Your task to perform on an android device: What is the recent news? Image 0: 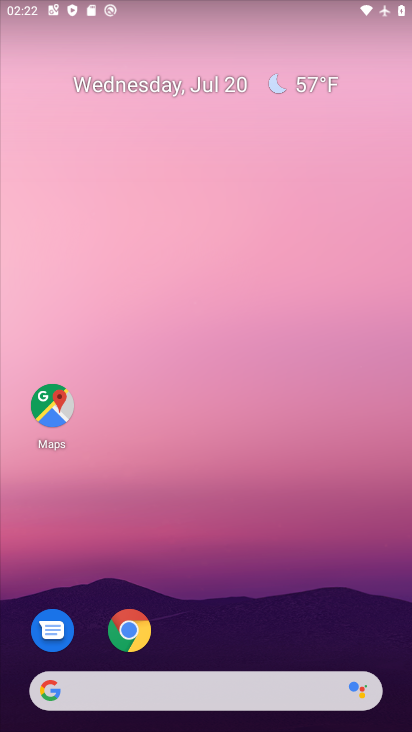
Step 0: drag from (313, 598) to (295, 6)
Your task to perform on an android device: What is the recent news? Image 1: 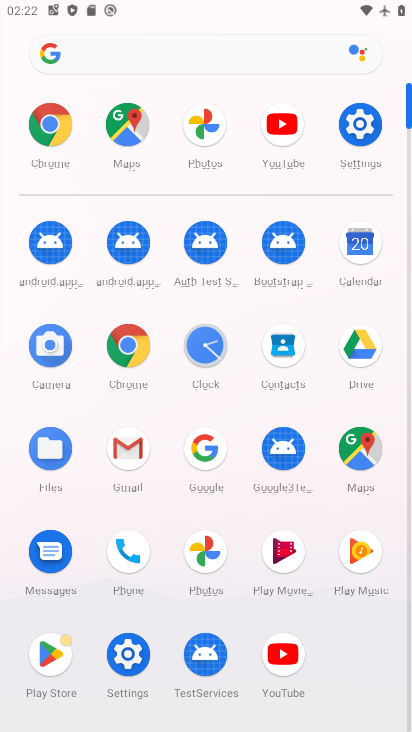
Step 1: click (53, 130)
Your task to perform on an android device: What is the recent news? Image 2: 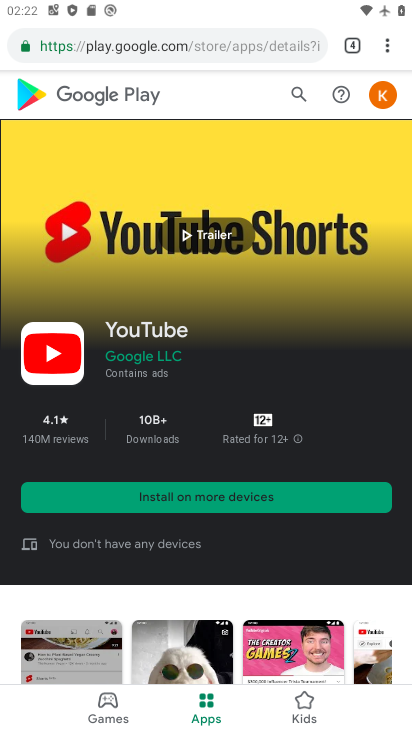
Step 2: click (214, 46)
Your task to perform on an android device: What is the recent news? Image 3: 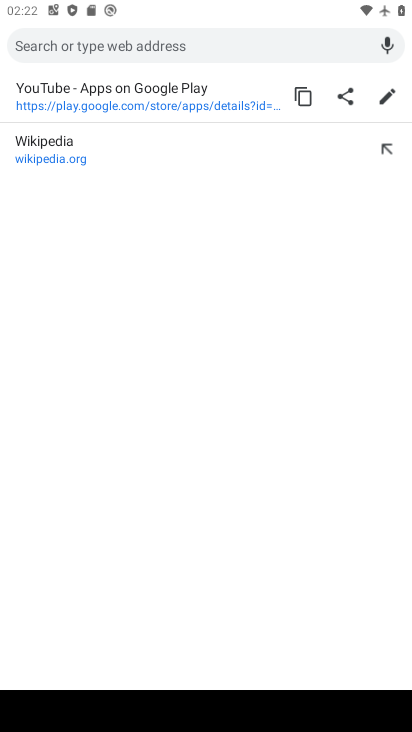
Step 3: type "news"
Your task to perform on an android device: What is the recent news? Image 4: 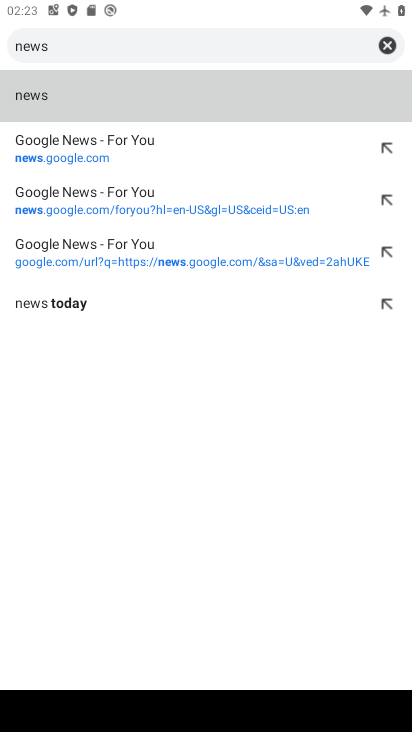
Step 4: click (30, 93)
Your task to perform on an android device: What is the recent news? Image 5: 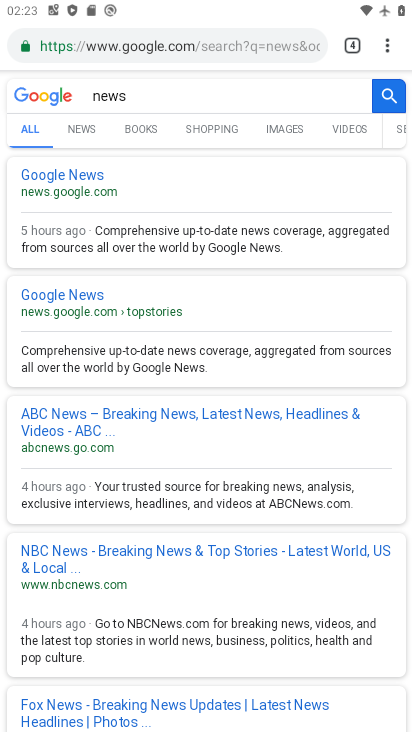
Step 5: click (80, 177)
Your task to perform on an android device: What is the recent news? Image 6: 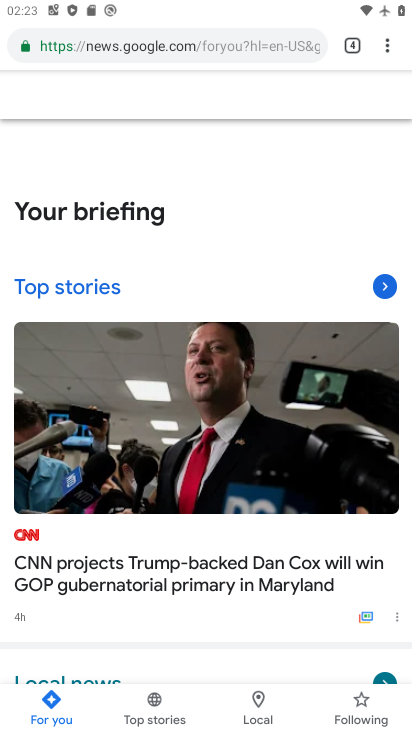
Step 6: task complete